Your task to perform on an android device: find which apps use the phone's location Image 0: 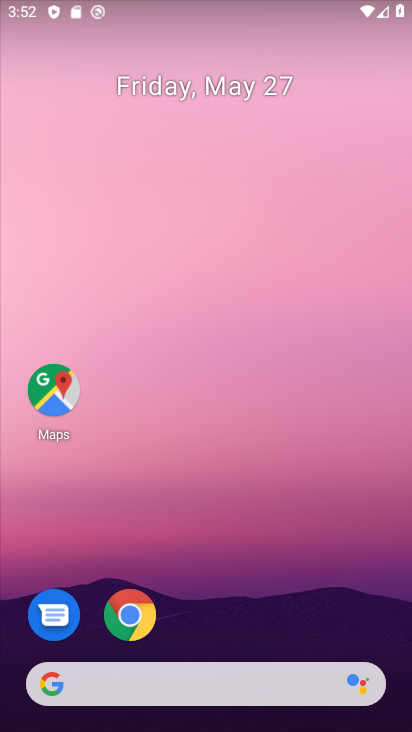
Step 0: drag from (203, 632) to (292, 196)
Your task to perform on an android device: find which apps use the phone's location Image 1: 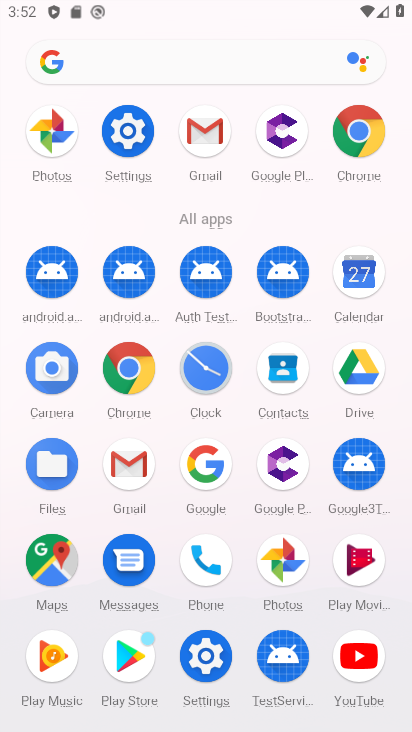
Step 1: drag from (164, 601) to (269, 291)
Your task to perform on an android device: find which apps use the phone's location Image 2: 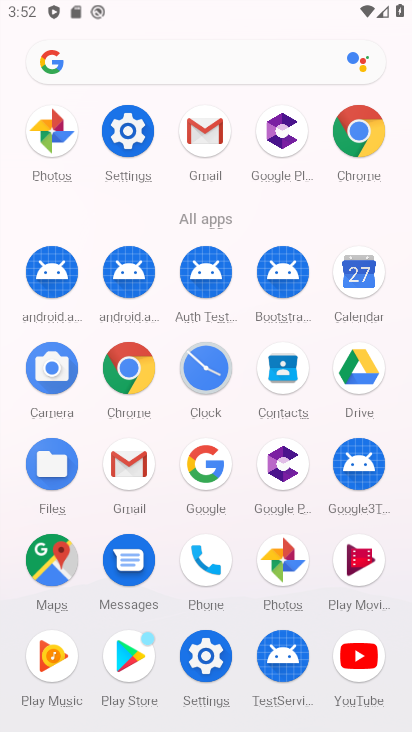
Step 2: click (220, 647)
Your task to perform on an android device: find which apps use the phone's location Image 3: 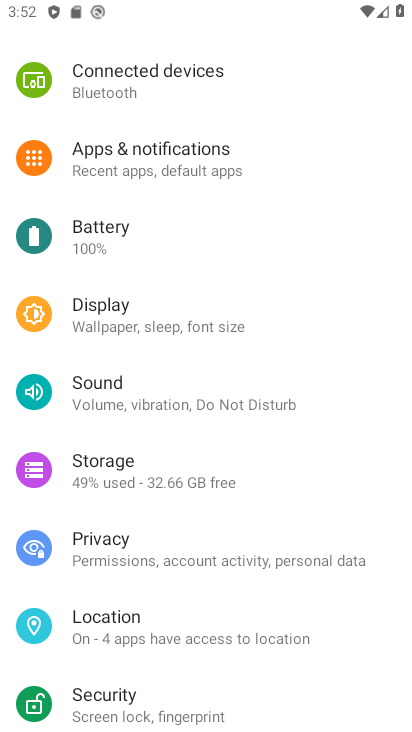
Step 3: click (161, 623)
Your task to perform on an android device: find which apps use the phone's location Image 4: 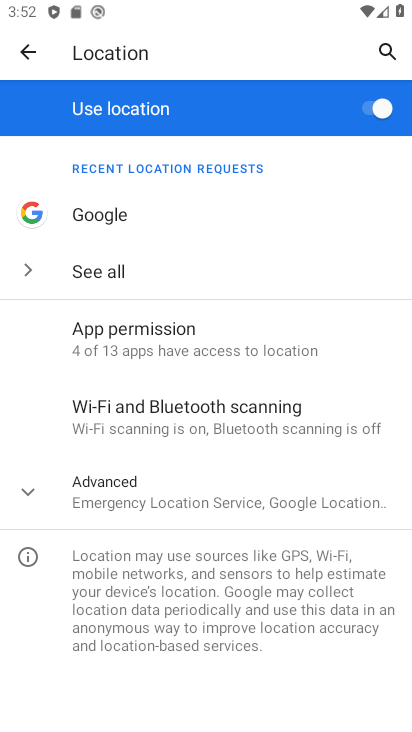
Step 4: click (196, 361)
Your task to perform on an android device: find which apps use the phone's location Image 5: 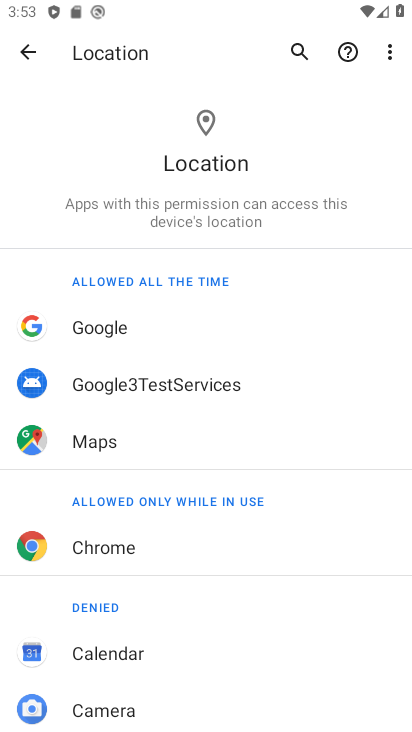
Step 5: task complete